Your task to perform on an android device: Open CNN.com Image 0: 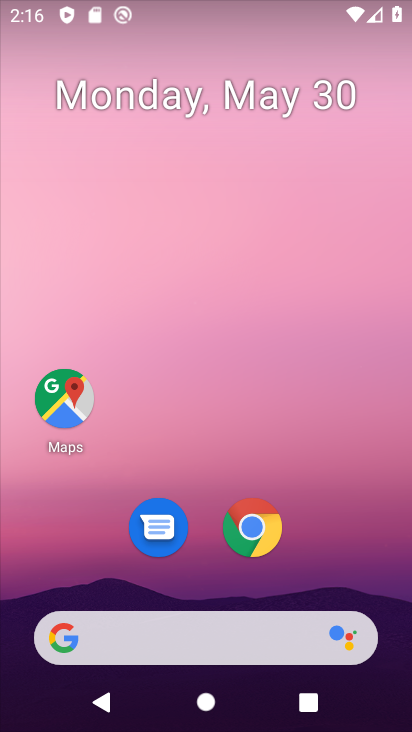
Step 0: drag from (300, 566) to (393, 102)
Your task to perform on an android device: Open CNN.com Image 1: 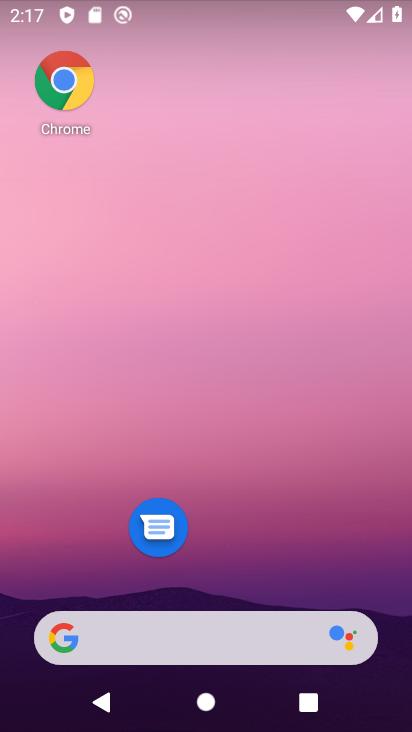
Step 1: click (67, 84)
Your task to perform on an android device: Open CNN.com Image 2: 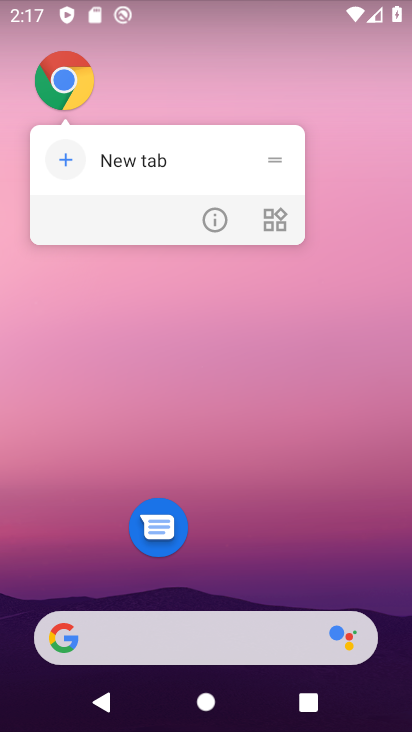
Step 2: click (321, 557)
Your task to perform on an android device: Open CNN.com Image 3: 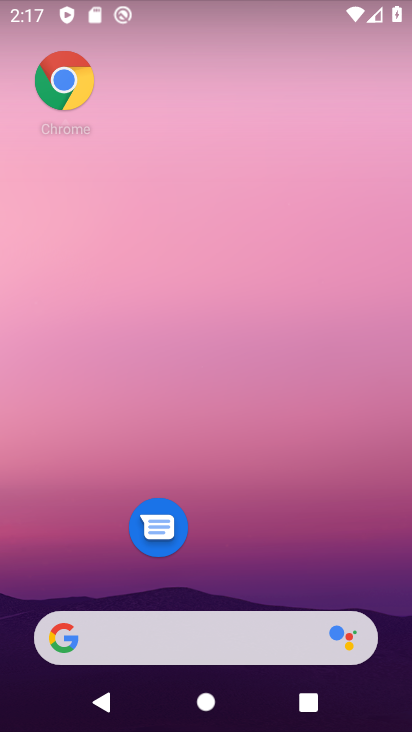
Step 3: drag from (321, 557) to (282, 73)
Your task to perform on an android device: Open CNN.com Image 4: 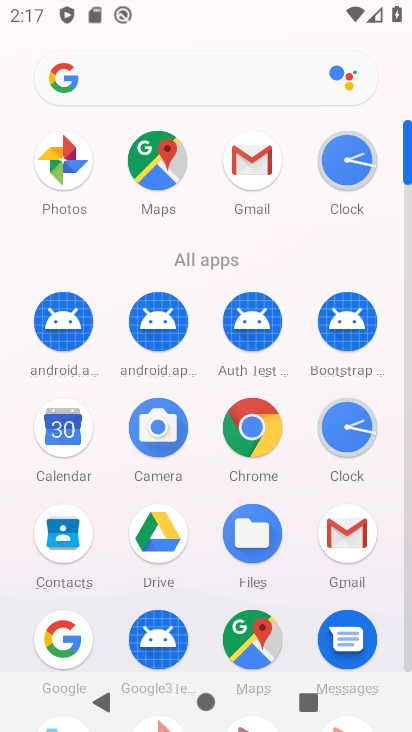
Step 4: click (251, 422)
Your task to perform on an android device: Open CNN.com Image 5: 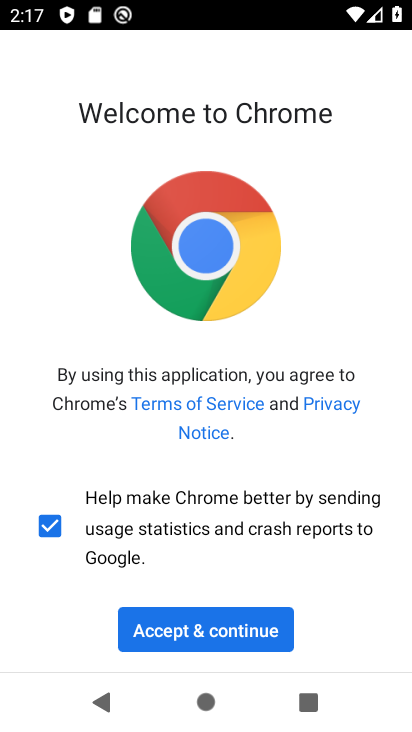
Step 5: click (217, 633)
Your task to perform on an android device: Open CNN.com Image 6: 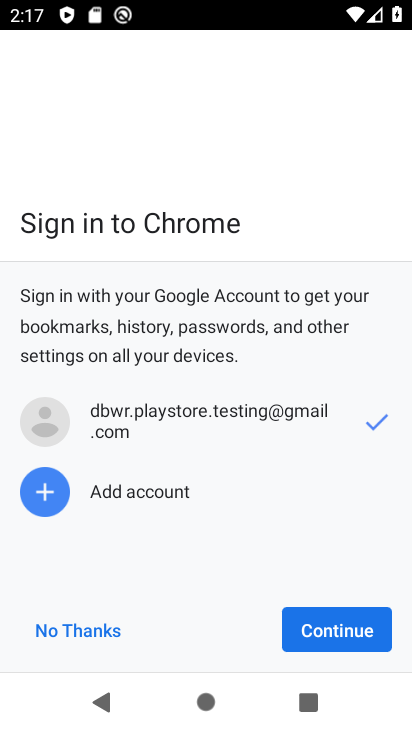
Step 6: click (338, 628)
Your task to perform on an android device: Open CNN.com Image 7: 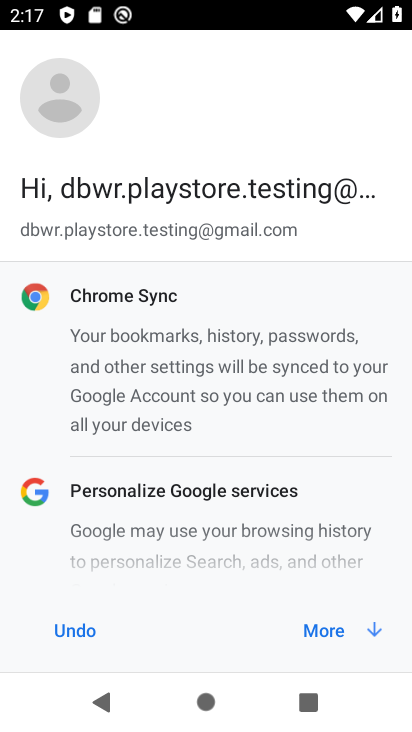
Step 7: click (338, 628)
Your task to perform on an android device: Open CNN.com Image 8: 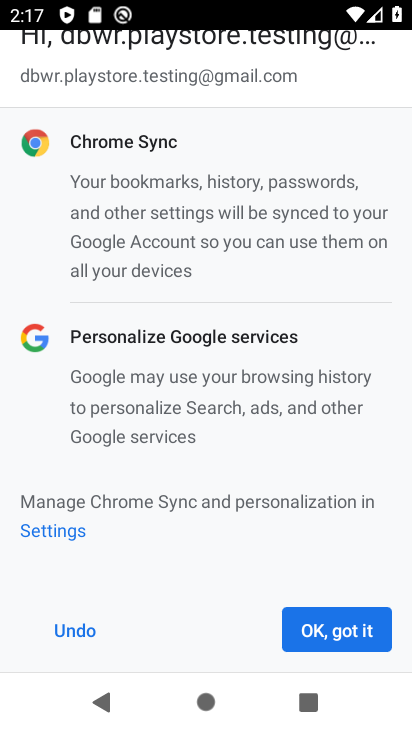
Step 8: click (338, 628)
Your task to perform on an android device: Open CNN.com Image 9: 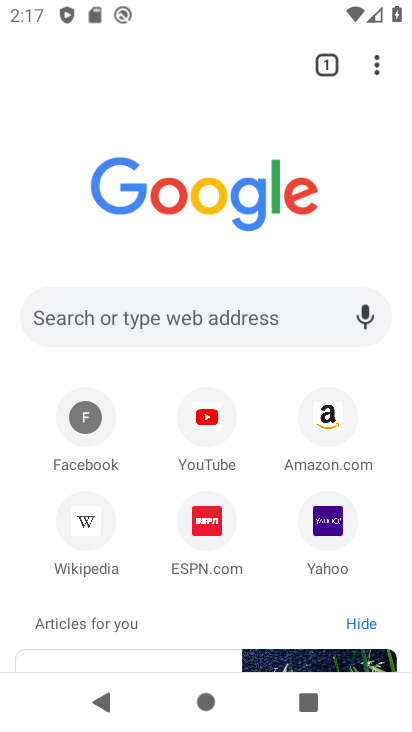
Step 9: click (127, 304)
Your task to perform on an android device: Open CNN.com Image 10: 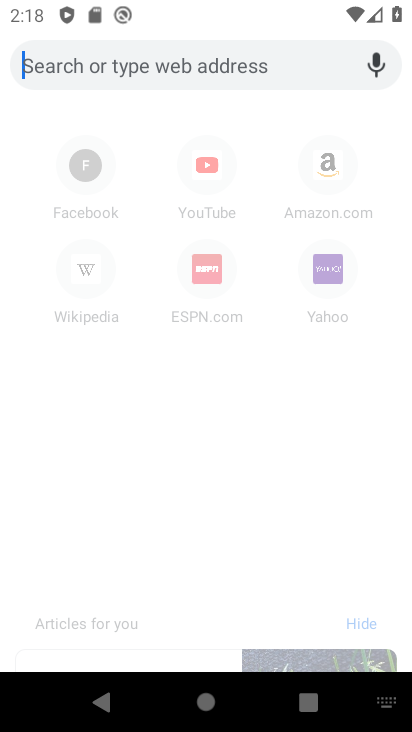
Step 10: type "CNN.com"
Your task to perform on an android device: Open CNN.com Image 11: 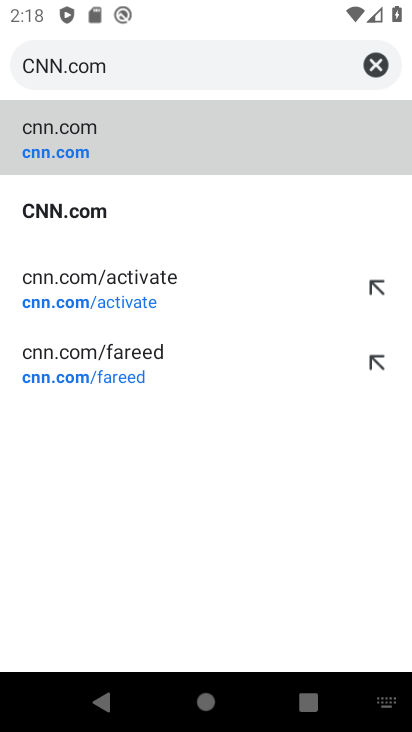
Step 11: click (33, 153)
Your task to perform on an android device: Open CNN.com Image 12: 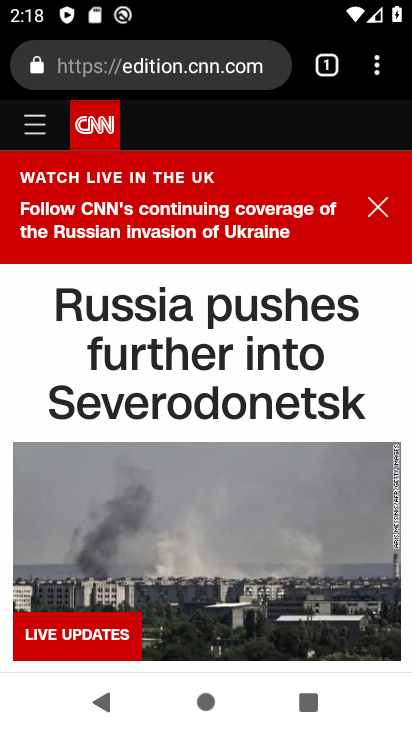
Step 12: task complete